Your task to perform on an android device: Open the web browser Image 0: 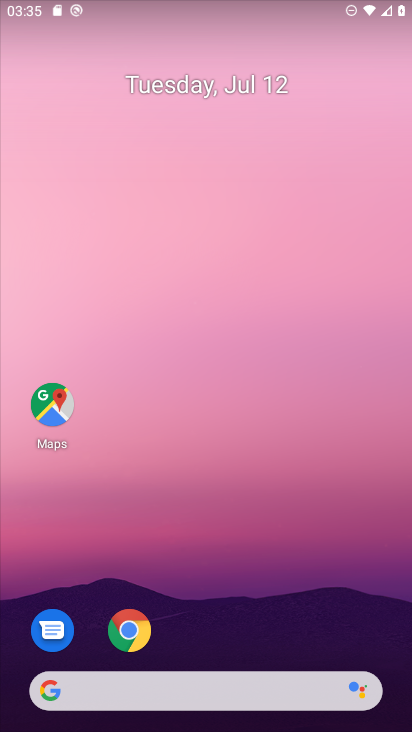
Step 0: click (129, 638)
Your task to perform on an android device: Open the web browser Image 1: 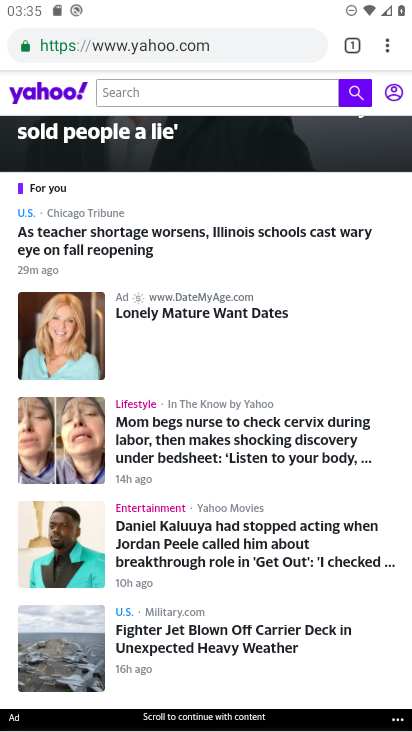
Step 1: task complete